Your task to perform on an android device: add a label to a message in the gmail app Image 0: 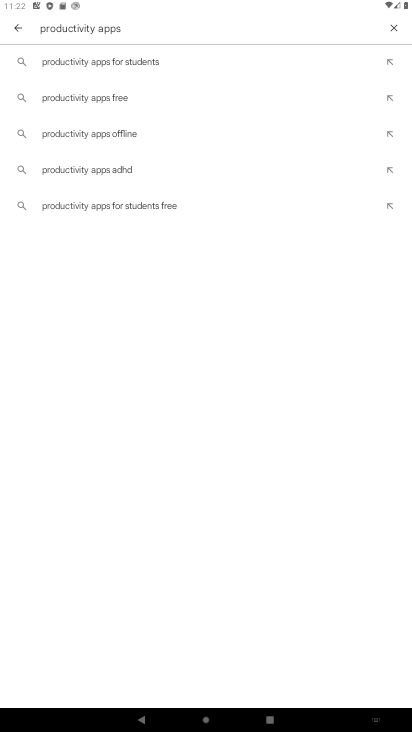
Step 0: press home button
Your task to perform on an android device: add a label to a message in the gmail app Image 1: 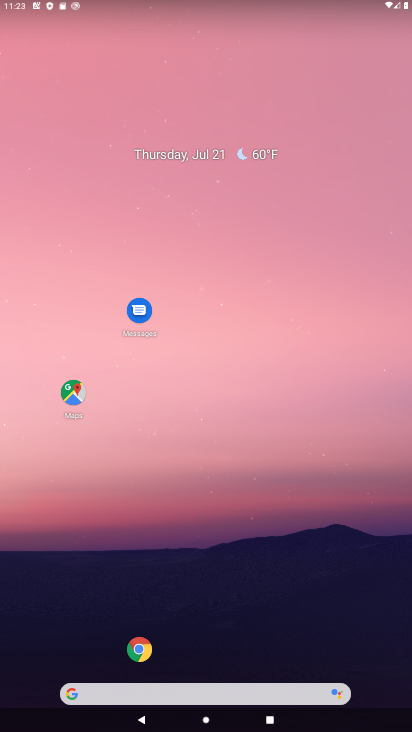
Step 1: drag from (66, 626) to (322, 117)
Your task to perform on an android device: add a label to a message in the gmail app Image 2: 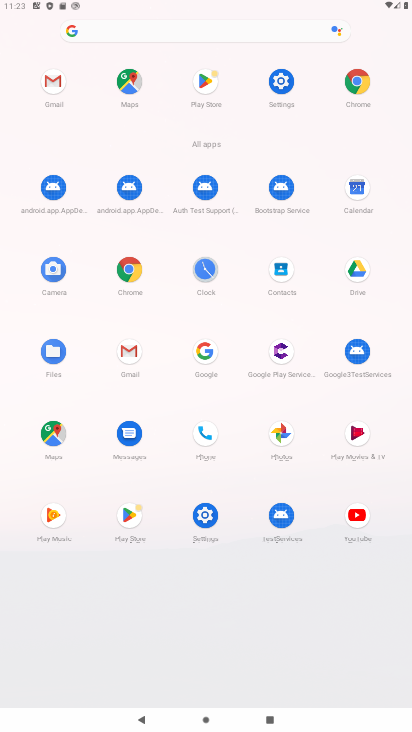
Step 2: click (120, 357)
Your task to perform on an android device: add a label to a message in the gmail app Image 3: 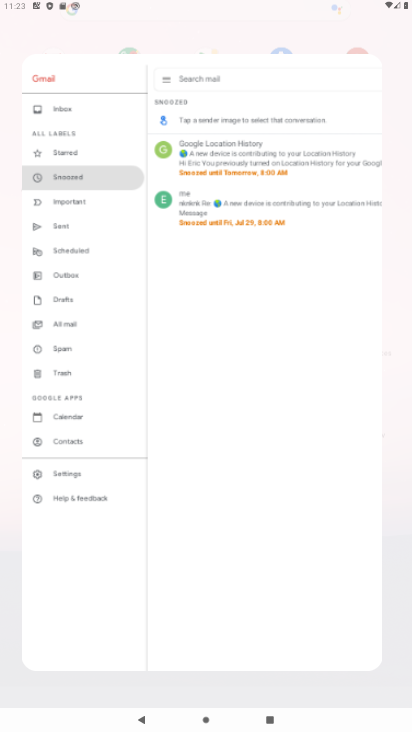
Step 3: click (127, 357)
Your task to perform on an android device: add a label to a message in the gmail app Image 4: 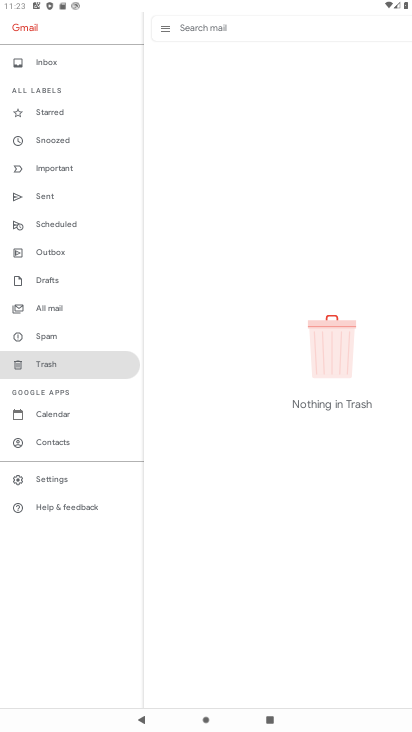
Step 4: click (62, 56)
Your task to perform on an android device: add a label to a message in the gmail app Image 5: 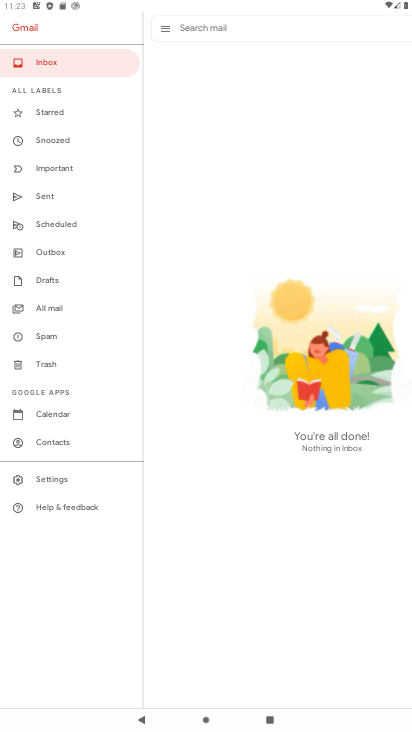
Step 5: task complete